Your task to perform on an android device: Open the phone app and click the voicemail tab. Image 0: 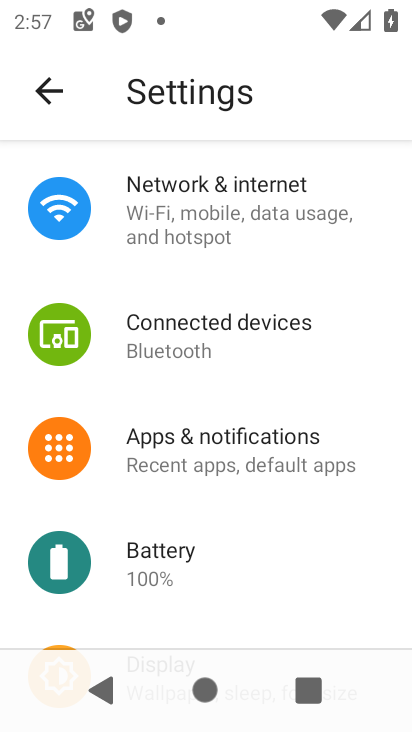
Step 0: press home button
Your task to perform on an android device: Open the phone app and click the voicemail tab. Image 1: 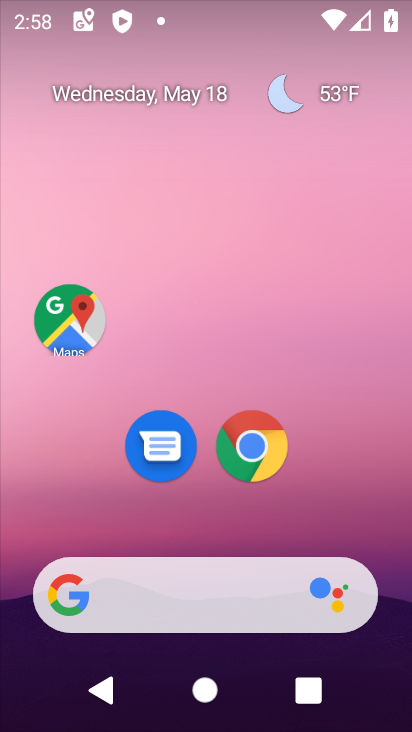
Step 1: drag from (311, 553) to (226, 2)
Your task to perform on an android device: Open the phone app and click the voicemail tab. Image 2: 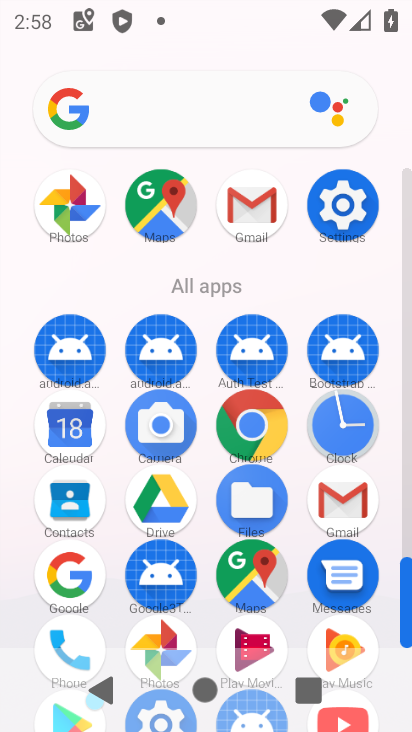
Step 2: click (66, 623)
Your task to perform on an android device: Open the phone app and click the voicemail tab. Image 3: 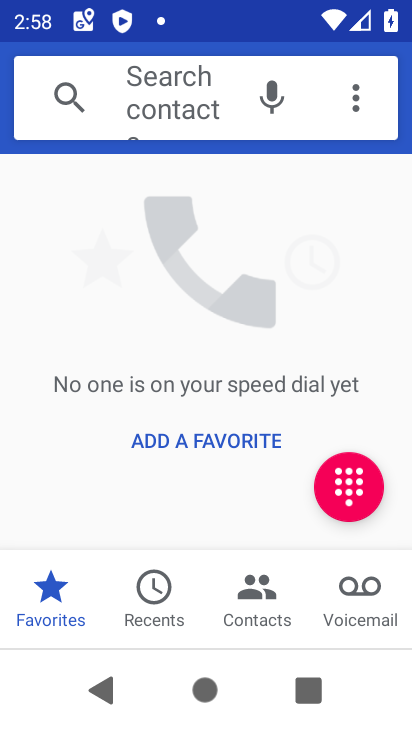
Step 3: click (356, 576)
Your task to perform on an android device: Open the phone app and click the voicemail tab. Image 4: 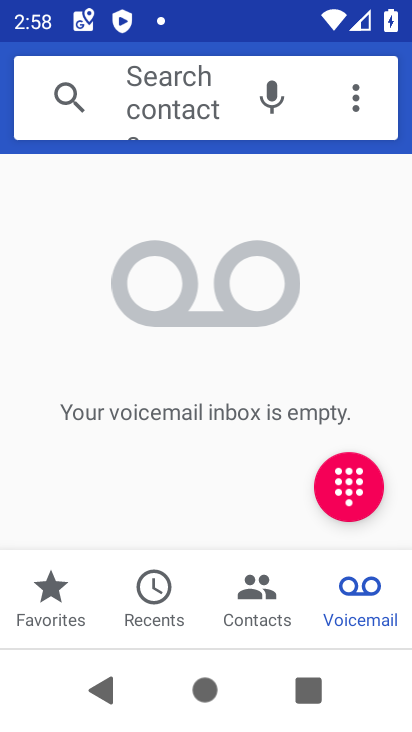
Step 4: task complete